Your task to perform on an android device: See recent photos Image 0: 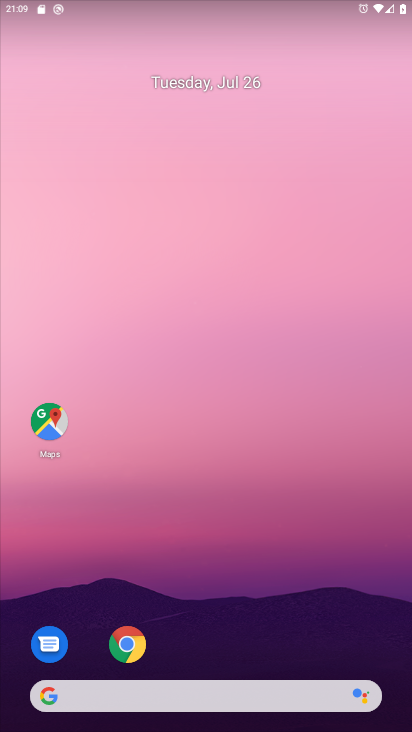
Step 0: drag from (273, 657) to (282, 165)
Your task to perform on an android device: See recent photos Image 1: 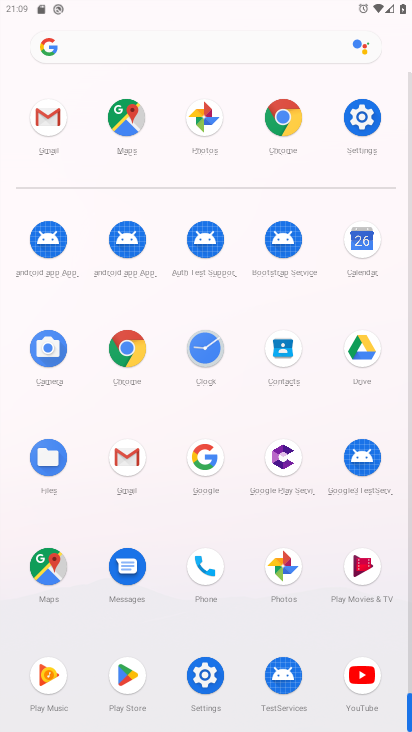
Step 1: click (272, 562)
Your task to perform on an android device: See recent photos Image 2: 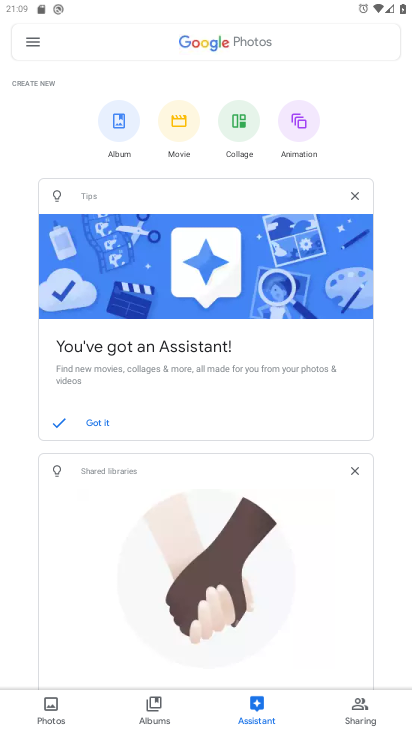
Step 2: click (45, 708)
Your task to perform on an android device: See recent photos Image 3: 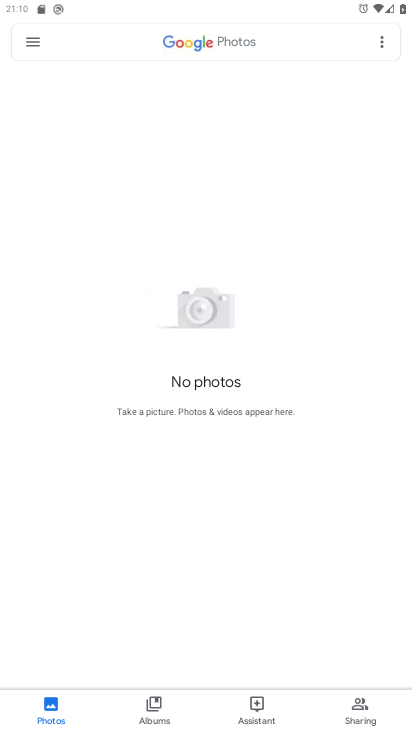
Step 3: task complete